Your task to perform on an android device: Add dell xps to the cart on target, then select checkout. Image 0: 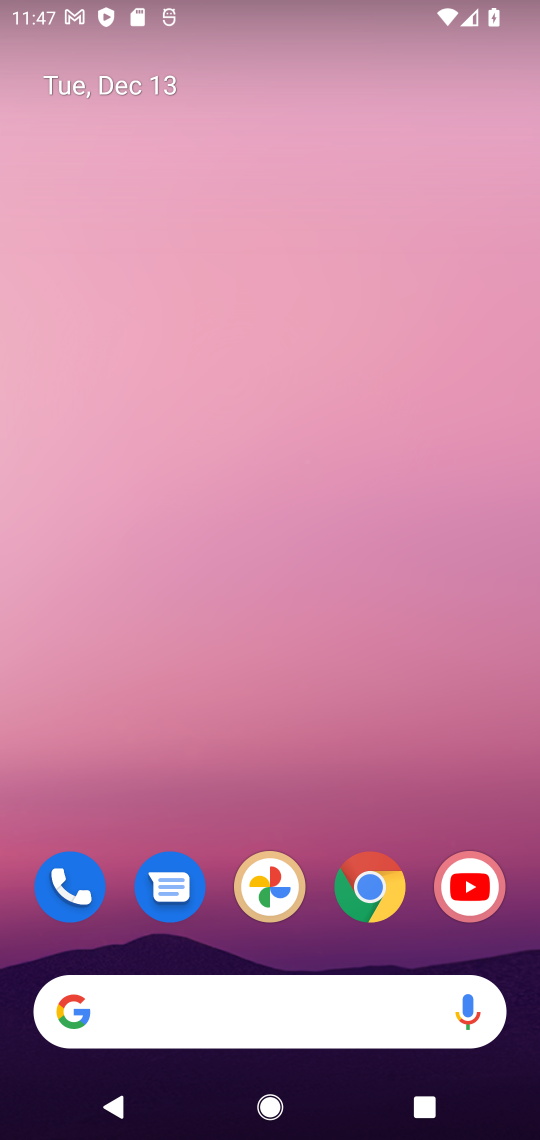
Step 0: drag from (235, 995) to (283, 268)
Your task to perform on an android device: Add dell xps to the cart on target, then select checkout. Image 1: 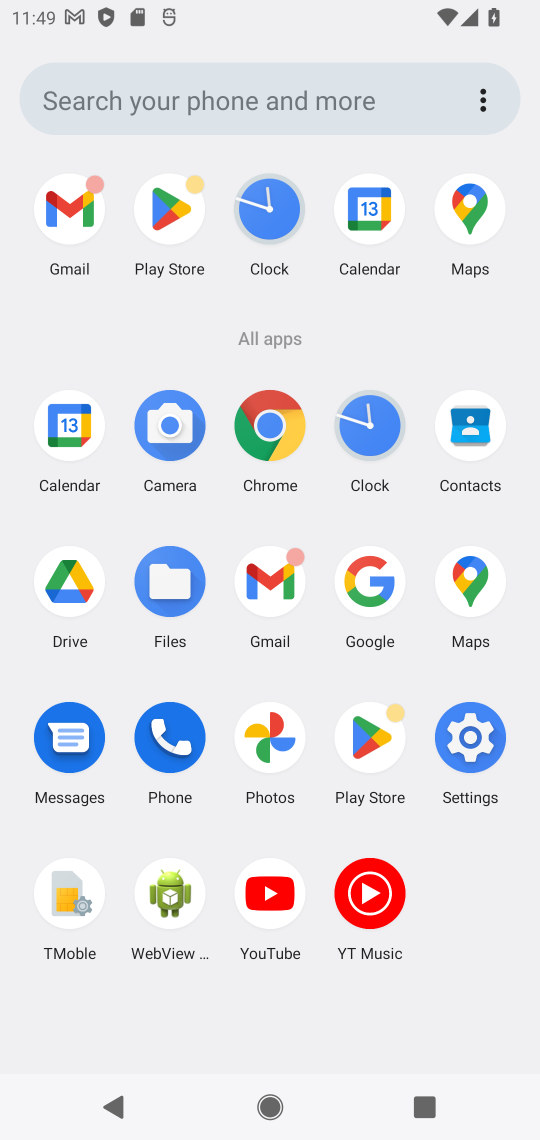
Step 1: click (377, 579)
Your task to perform on an android device: Add dell xps to the cart on target, then select checkout. Image 2: 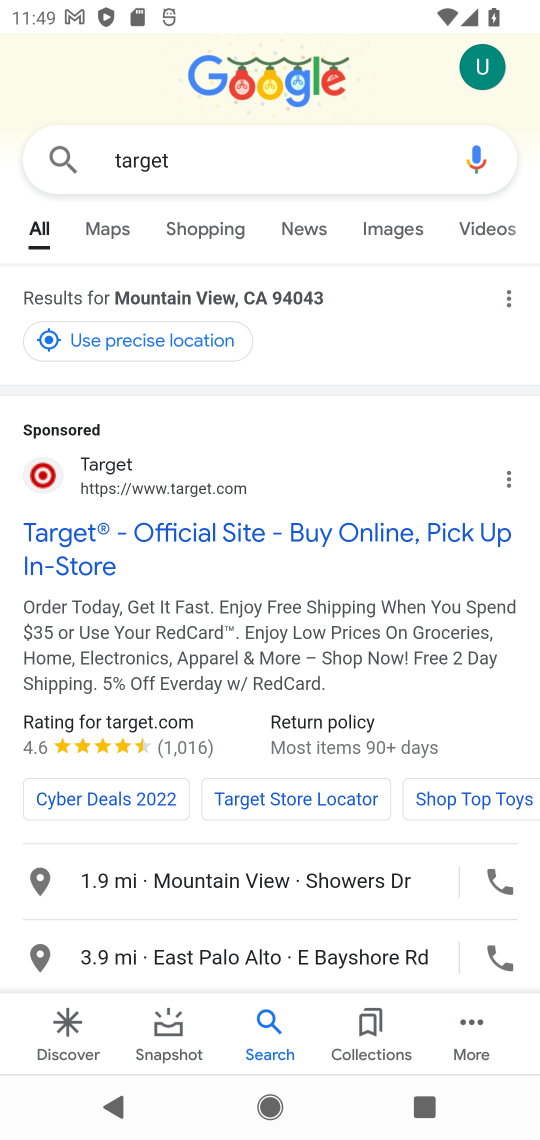
Step 2: click (160, 161)
Your task to perform on an android device: Add dell xps to the cart on target, then select checkout. Image 3: 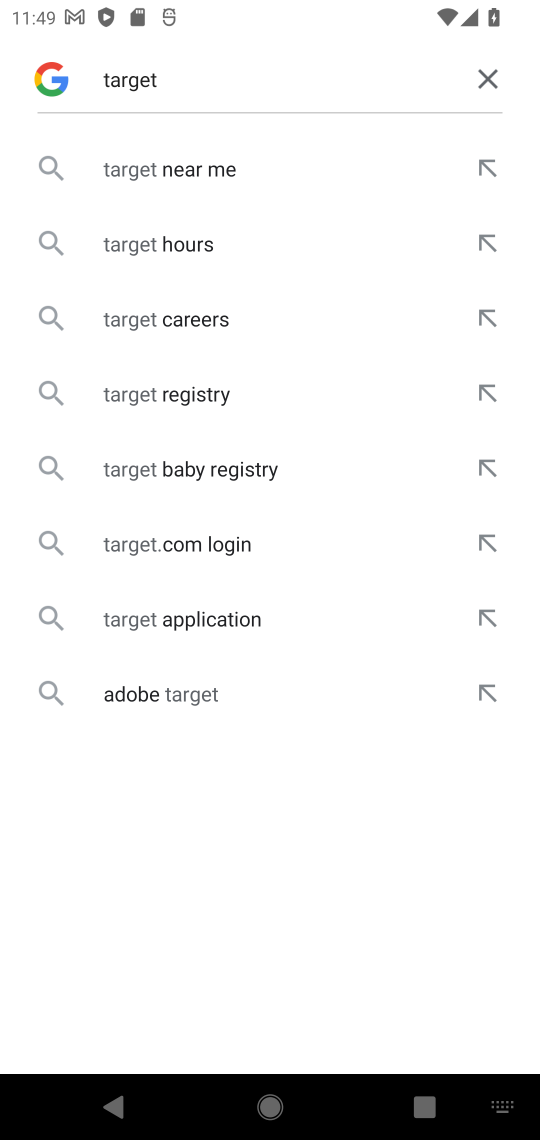
Step 3: click (491, 76)
Your task to perform on an android device: Add dell xps to the cart on target, then select checkout. Image 4: 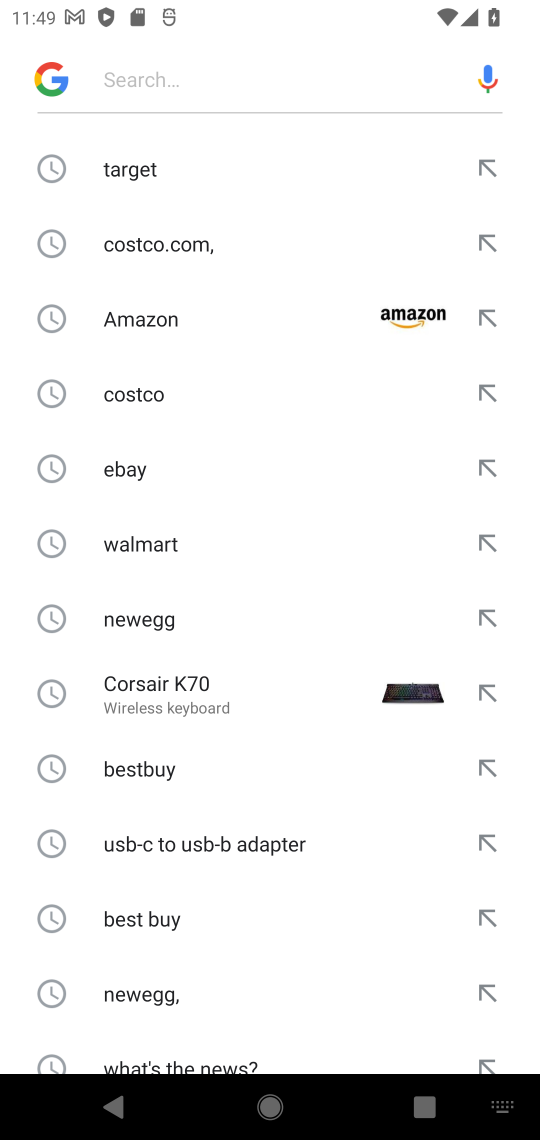
Step 4: click (148, 166)
Your task to perform on an android device: Add dell xps to the cart on target, then select checkout. Image 5: 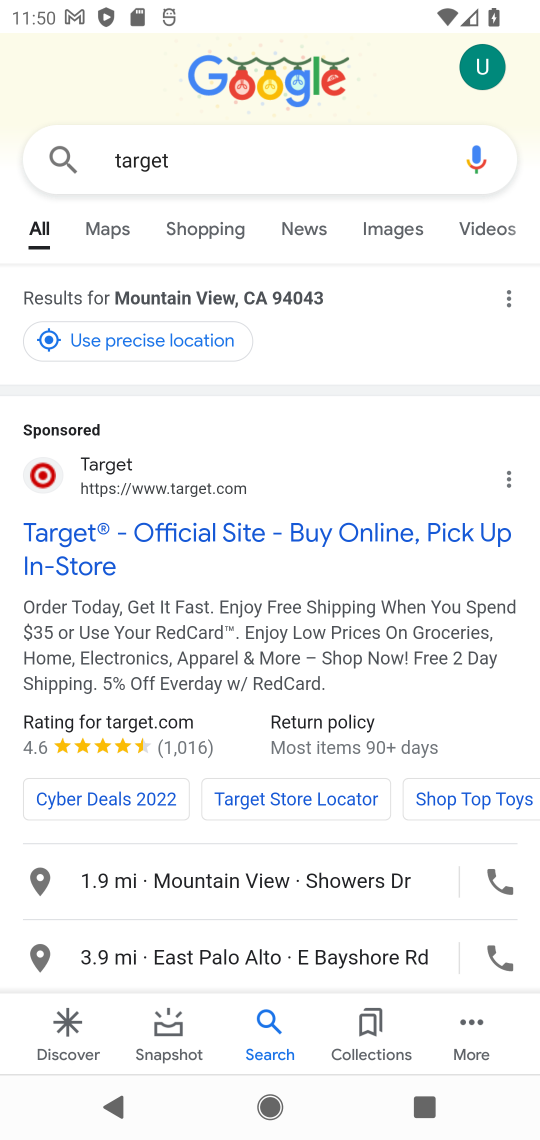
Step 5: click (213, 544)
Your task to perform on an android device: Add dell xps to the cart on target, then select checkout. Image 6: 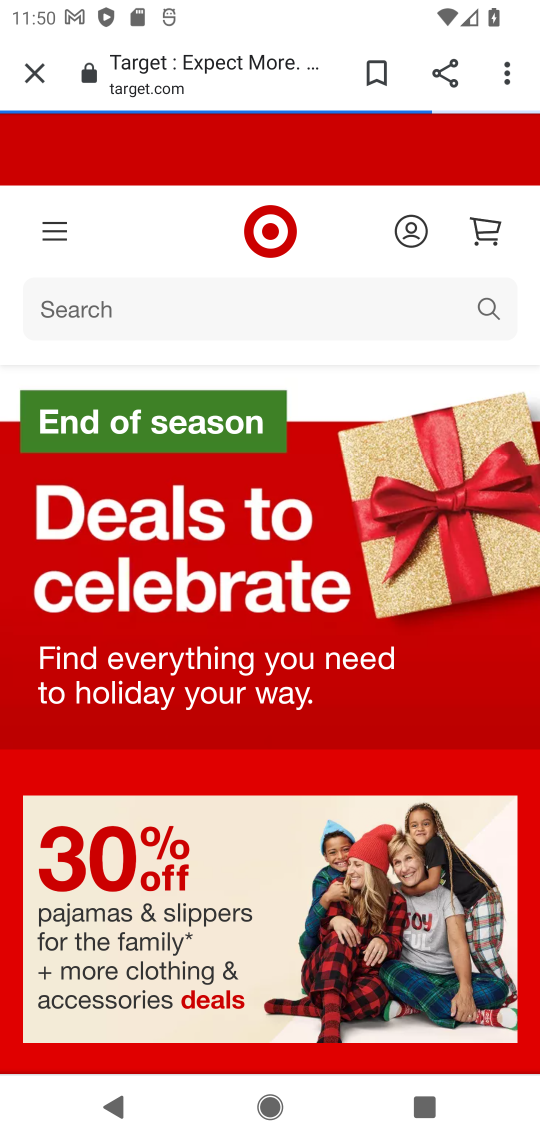
Step 6: click (186, 317)
Your task to perform on an android device: Add dell xps to the cart on target, then select checkout. Image 7: 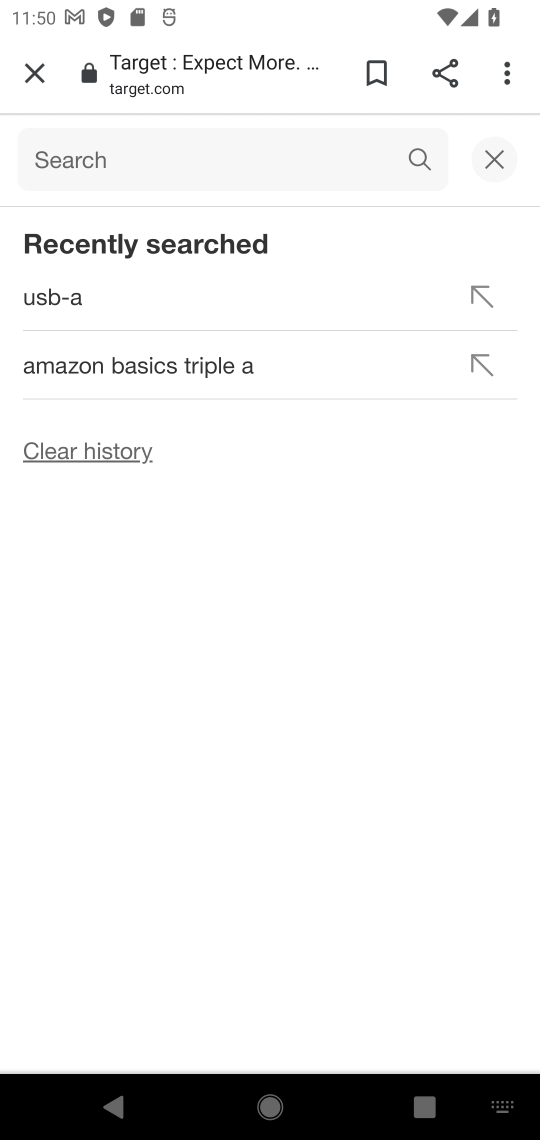
Step 7: type "dell xps"
Your task to perform on an android device: Add dell xps to the cart on target, then select checkout. Image 8: 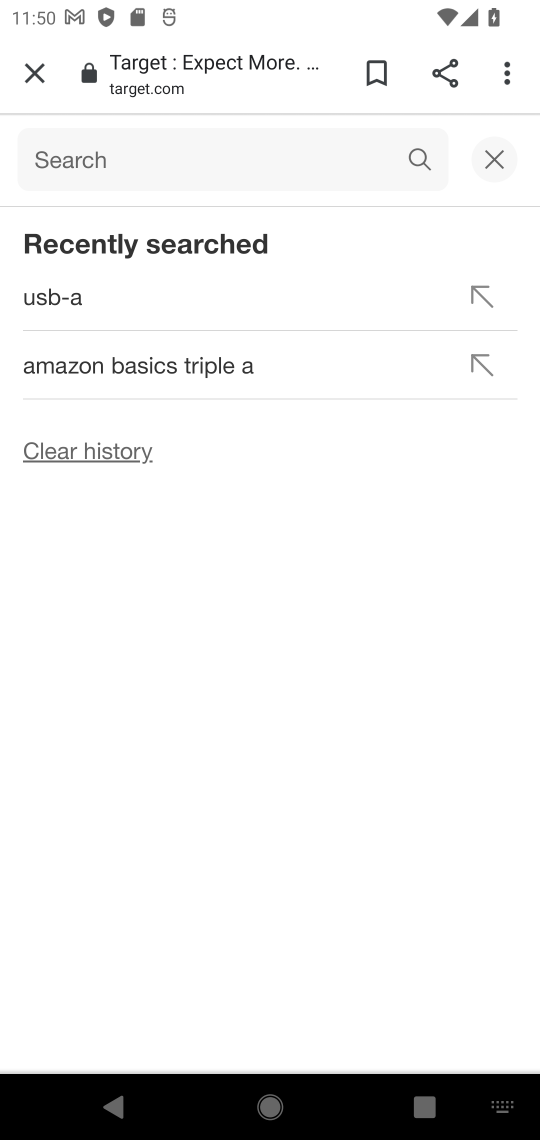
Step 8: click (411, 155)
Your task to perform on an android device: Add dell xps to the cart on target, then select checkout. Image 9: 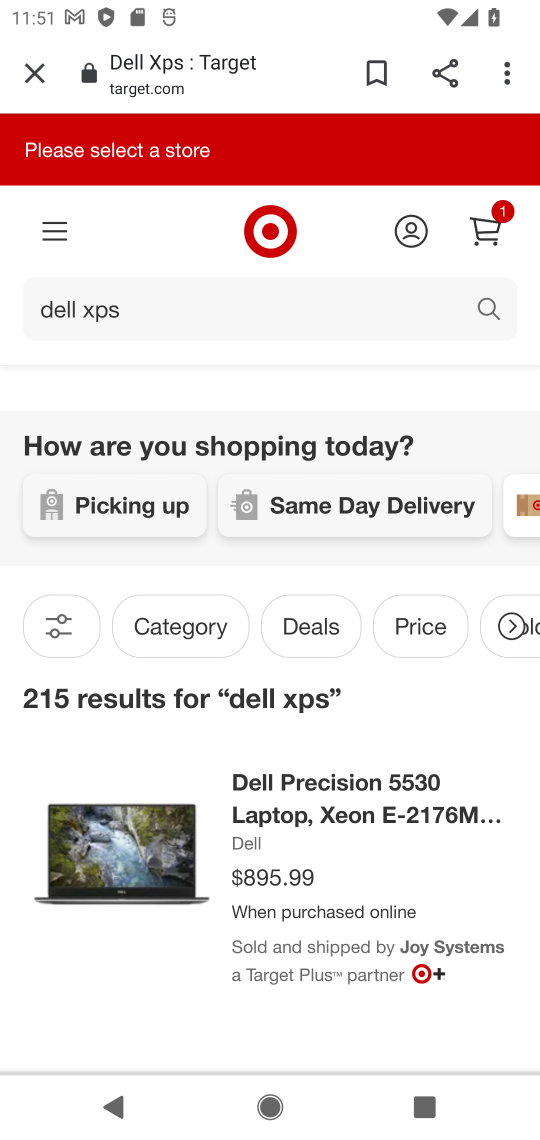
Step 9: drag from (382, 956) to (438, 496)
Your task to perform on an android device: Add dell xps to the cart on target, then select checkout. Image 10: 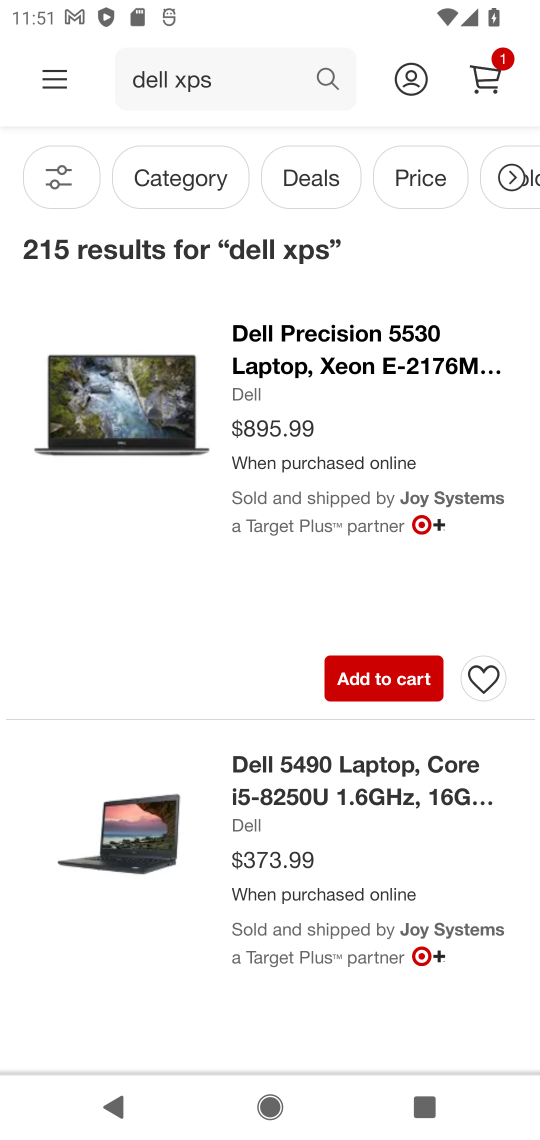
Step 10: click (397, 674)
Your task to perform on an android device: Add dell xps to the cart on target, then select checkout. Image 11: 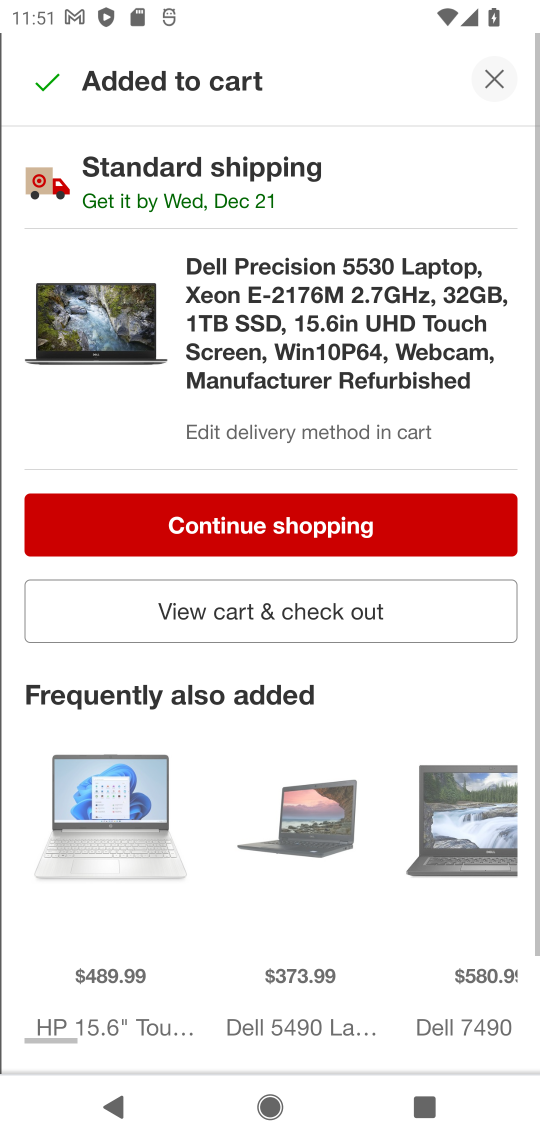
Step 11: task complete